Your task to perform on an android device: Is it going to rain this weekend? Image 0: 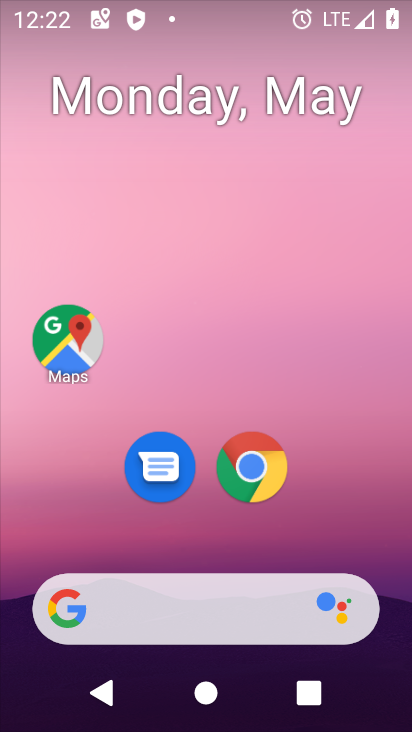
Step 0: click (111, 609)
Your task to perform on an android device: Is it going to rain this weekend? Image 1: 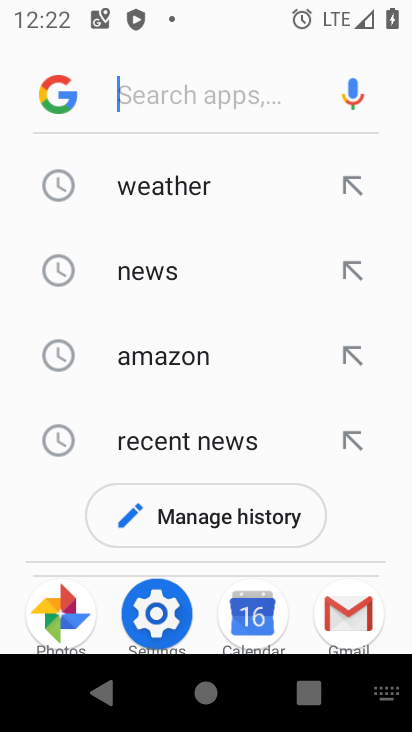
Step 1: click (157, 193)
Your task to perform on an android device: Is it going to rain this weekend? Image 2: 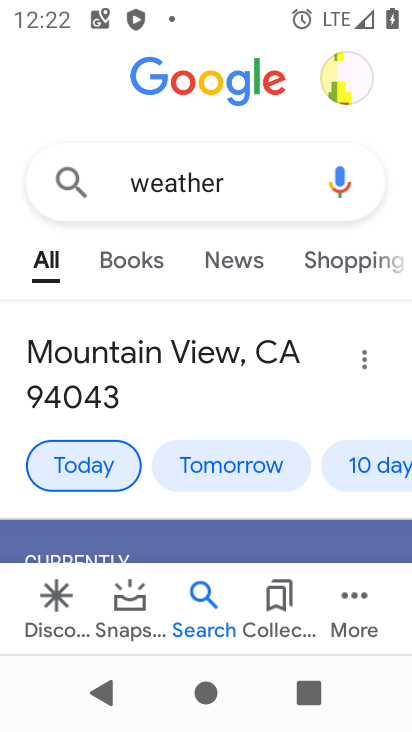
Step 2: click (377, 467)
Your task to perform on an android device: Is it going to rain this weekend? Image 3: 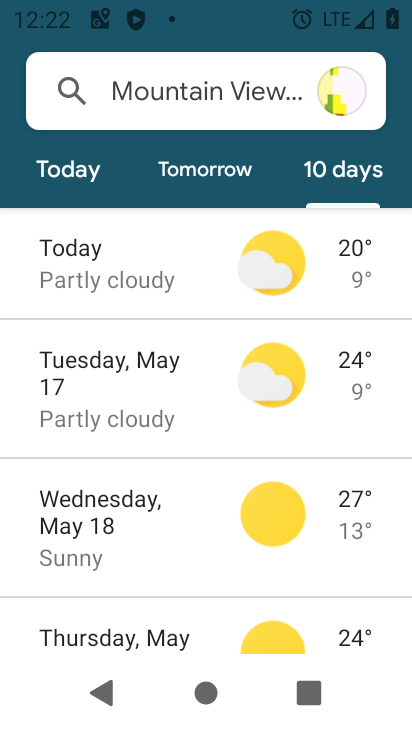
Step 3: task complete